Your task to perform on an android device: install app "Spotify" Image 0: 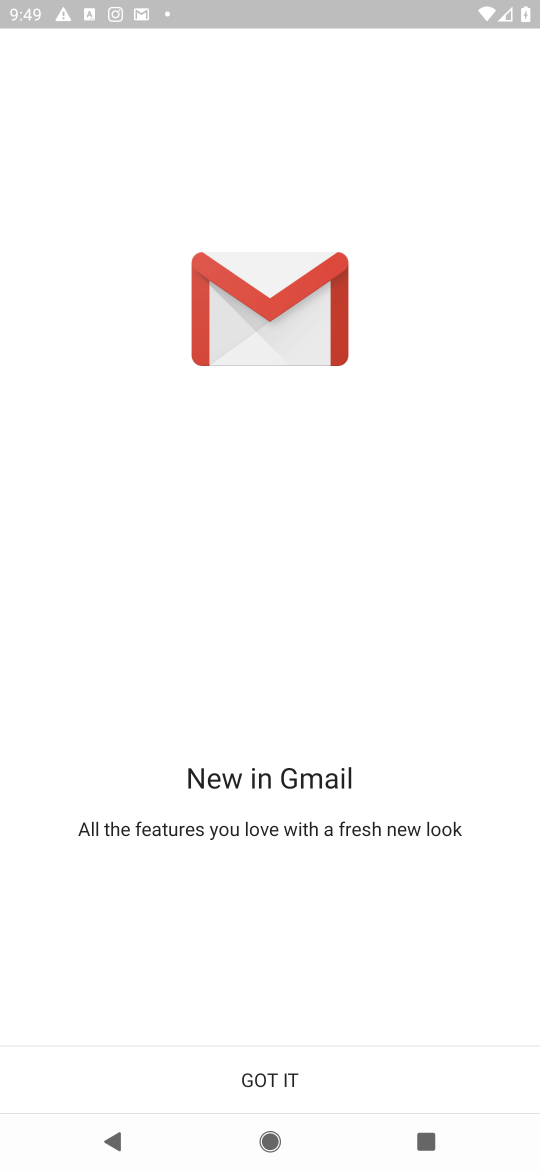
Step 0: press home button
Your task to perform on an android device: install app "Spotify" Image 1: 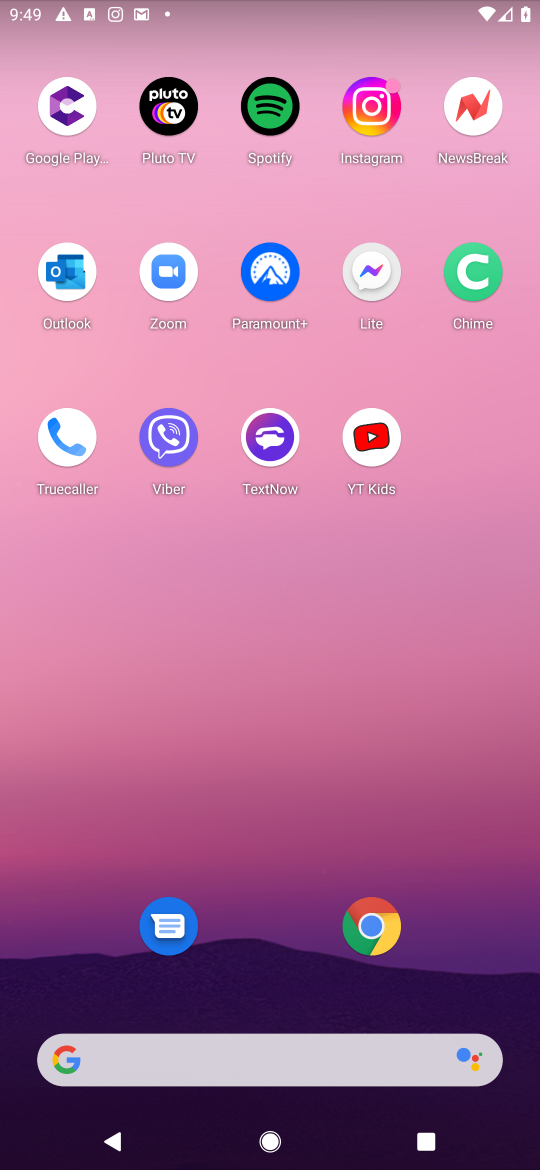
Step 1: drag from (266, 1001) to (306, 66)
Your task to perform on an android device: install app "Spotify" Image 2: 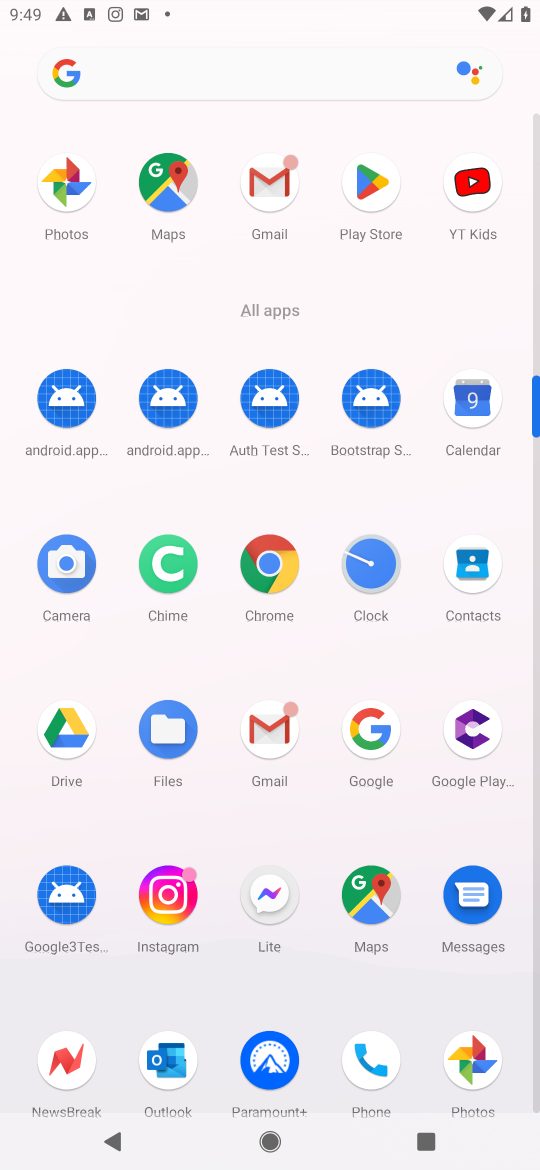
Step 2: click (372, 204)
Your task to perform on an android device: install app "Spotify" Image 3: 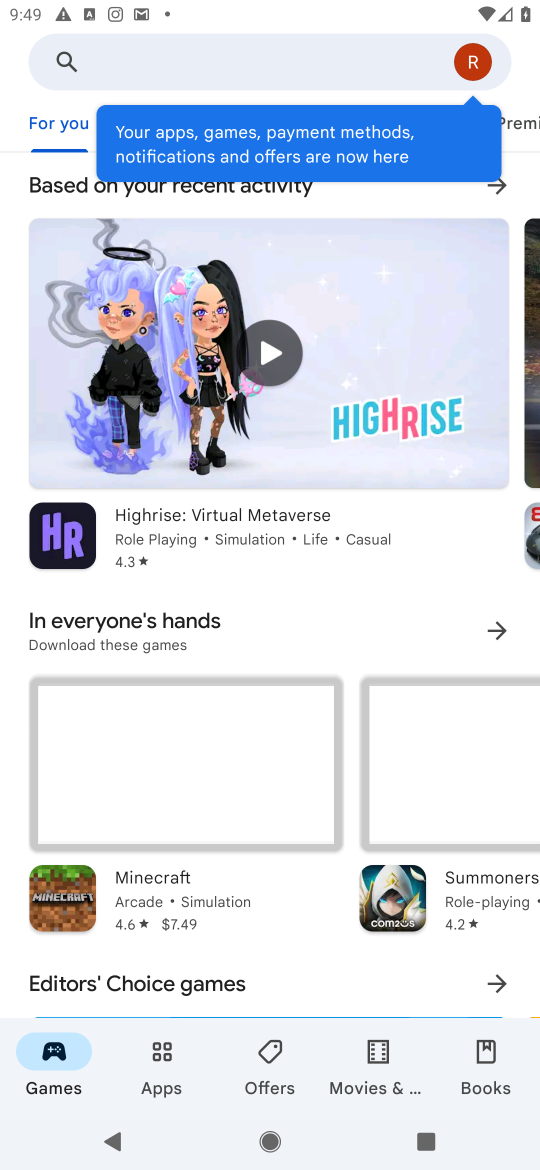
Step 3: click (289, 50)
Your task to perform on an android device: install app "Spotify" Image 4: 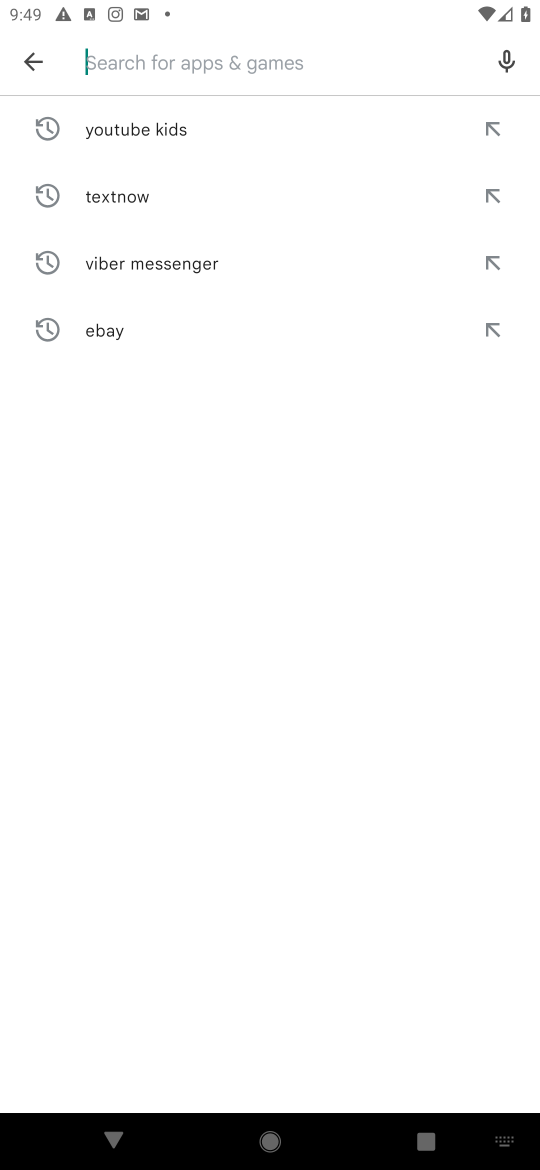
Step 4: type "spotify"
Your task to perform on an android device: install app "Spotify" Image 5: 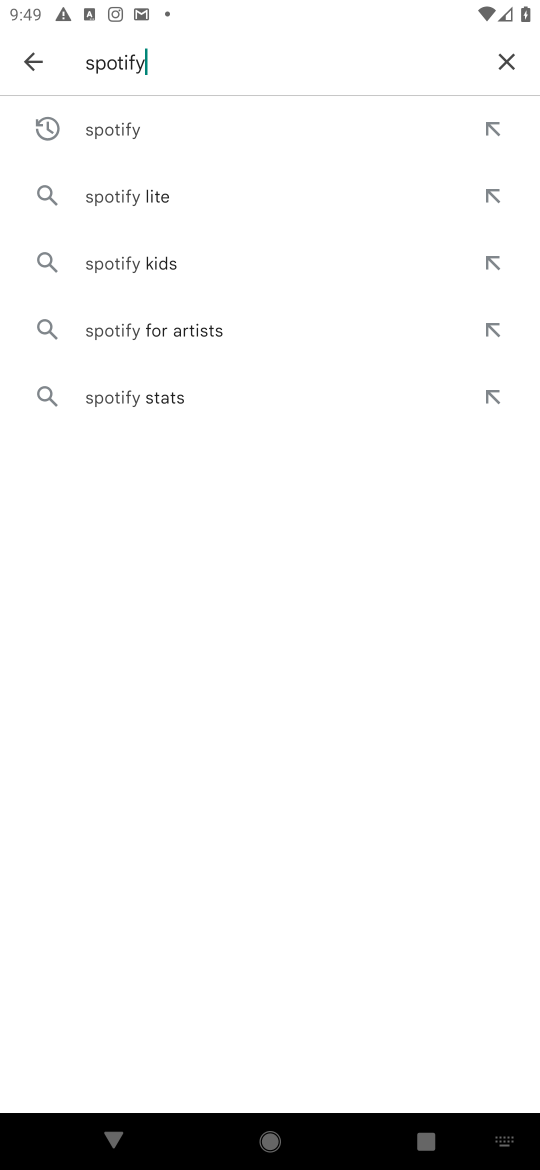
Step 5: click (122, 143)
Your task to perform on an android device: install app "Spotify" Image 6: 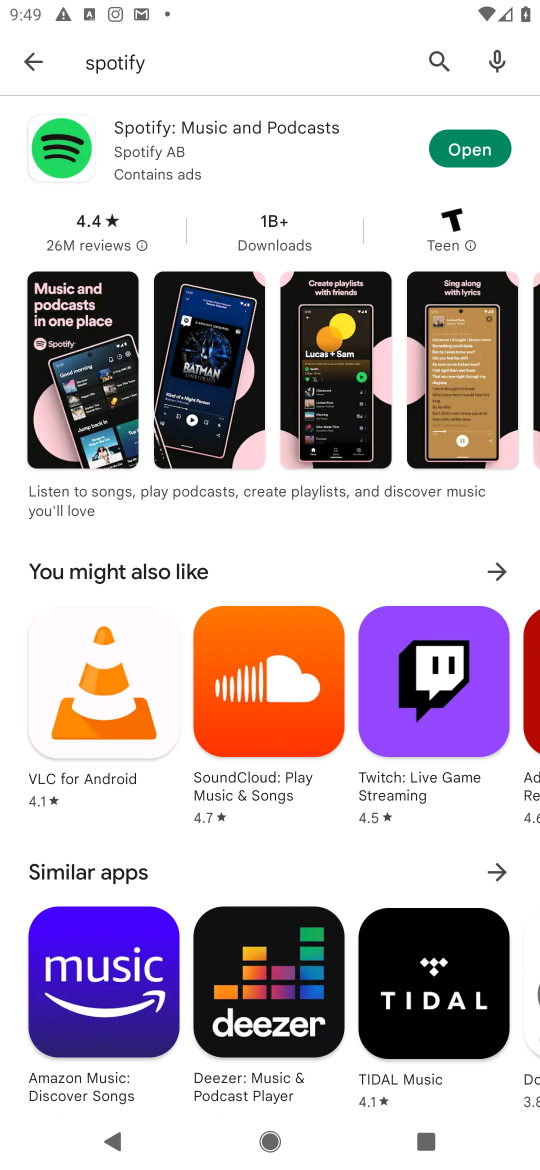
Step 6: task complete